Your task to perform on an android device: turn on data saver in the chrome app Image 0: 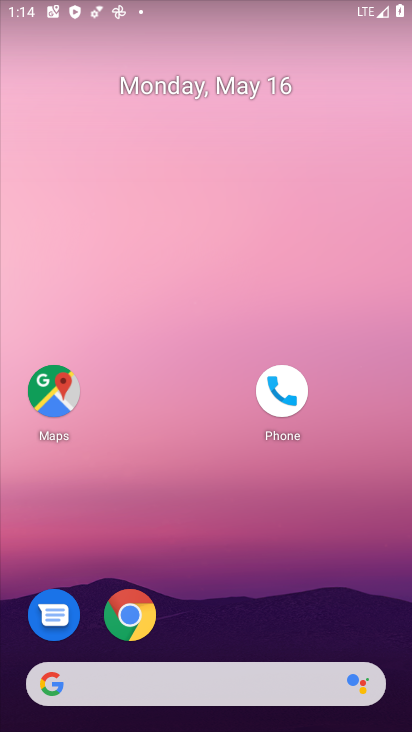
Step 0: drag from (284, 668) to (297, 46)
Your task to perform on an android device: turn on data saver in the chrome app Image 1: 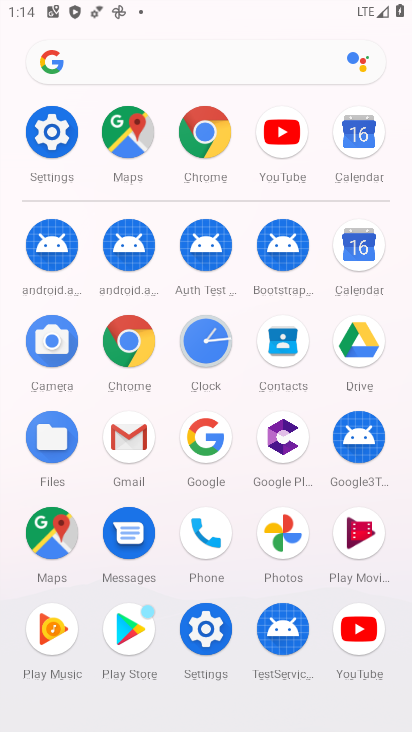
Step 1: click (117, 341)
Your task to perform on an android device: turn on data saver in the chrome app Image 2: 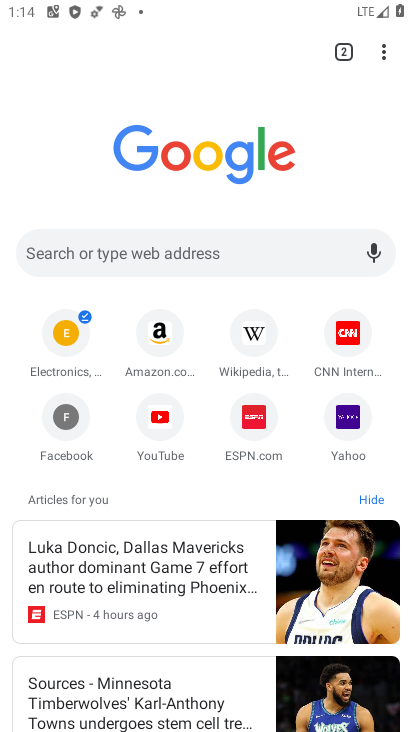
Step 2: click (385, 41)
Your task to perform on an android device: turn on data saver in the chrome app Image 3: 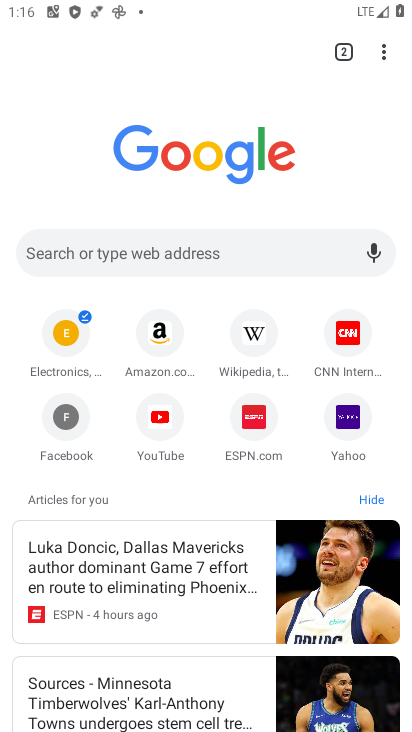
Step 3: drag from (376, 54) to (174, 433)
Your task to perform on an android device: turn on data saver in the chrome app Image 4: 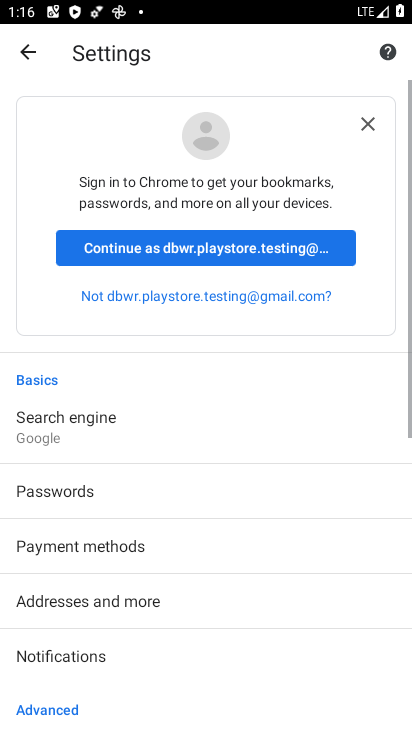
Step 4: drag from (285, 628) to (290, 42)
Your task to perform on an android device: turn on data saver in the chrome app Image 5: 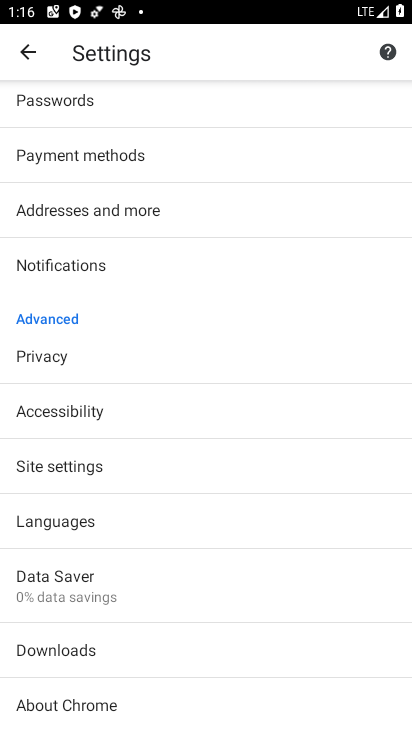
Step 5: click (87, 610)
Your task to perform on an android device: turn on data saver in the chrome app Image 6: 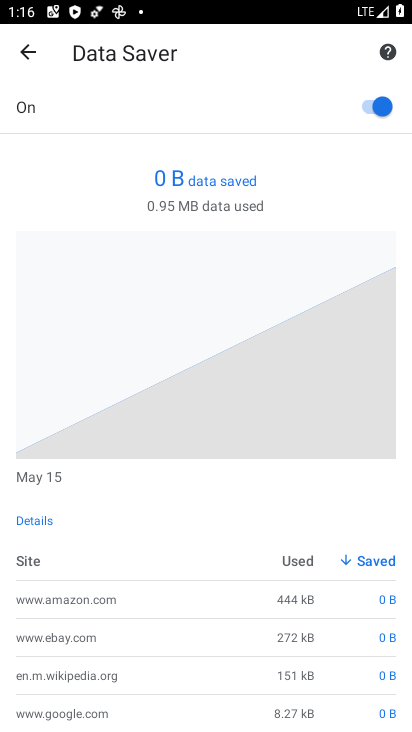
Step 6: task complete